Your task to perform on an android device: toggle pop-ups in chrome Image 0: 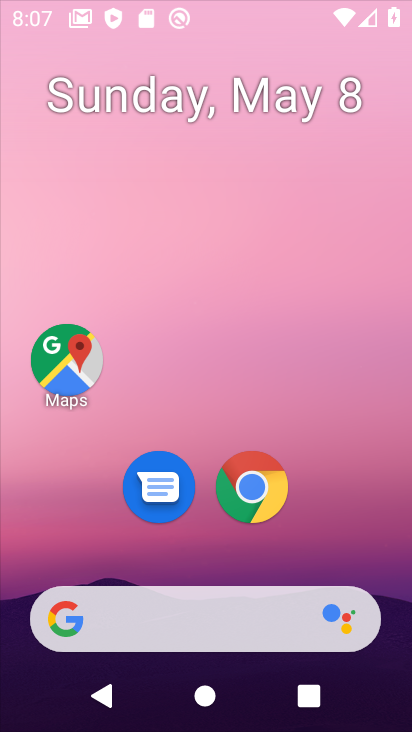
Step 0: click (380, 10)
Your task to perform on an android device: toggle pop-ups in chrome Image 1: 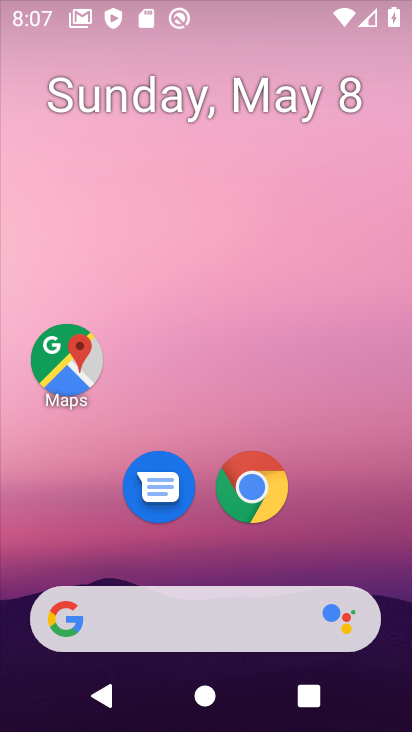
Step 1: press home button
Your task to perform on an android device: toggle pop-ups in chrome Image 2: 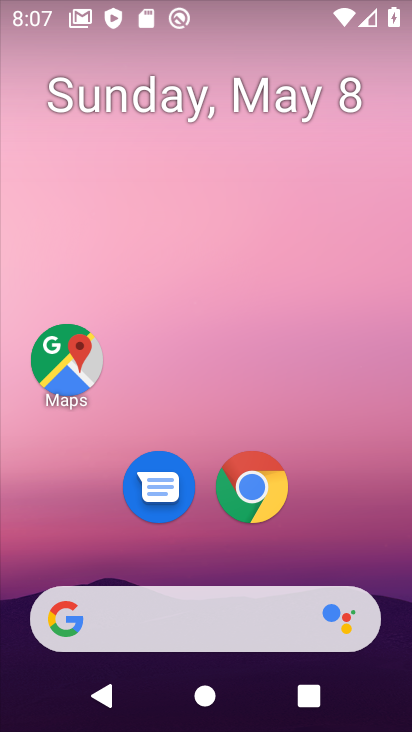
Step 2: click (258, 509)
Your task to perform on an android device: toggle pop-ups in chrome Image 3: 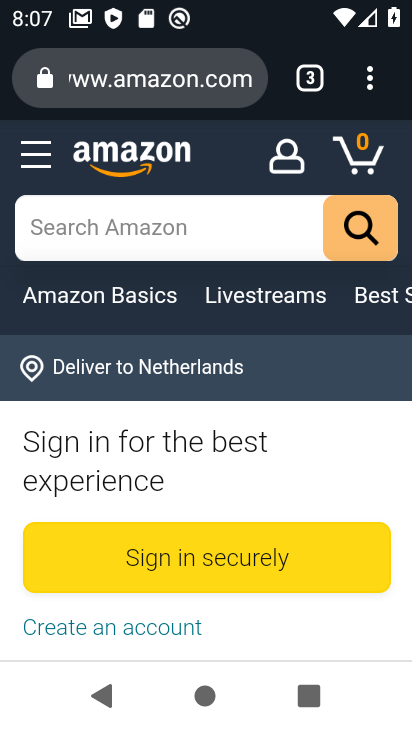
Step 3: click (372, 97)
Your task to perform on an android device: toggle pop-ups in chrome Image 4: 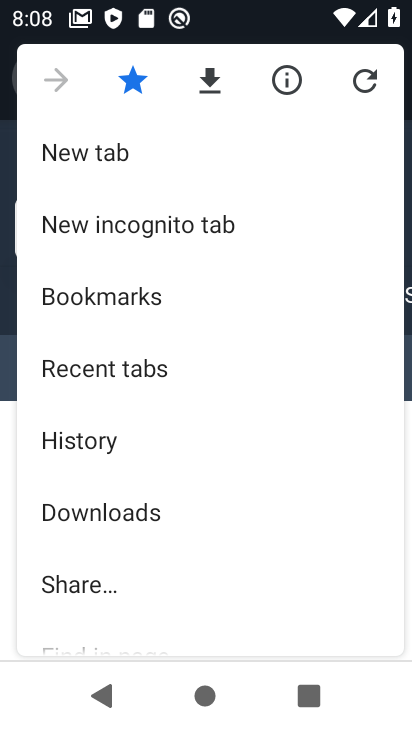
Step 4: drag from (162, 520) to (235, 292)
Your task to perform on an android device: toggle pop-ups in chrome Image 5: 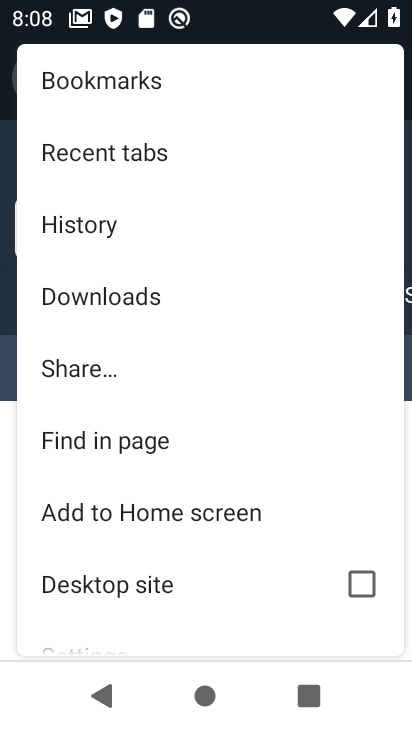
Step 5: drag from (129, 590) to (202, 337)
Your task to perform on an android device: toggle pop-ups in chrome Image 6: 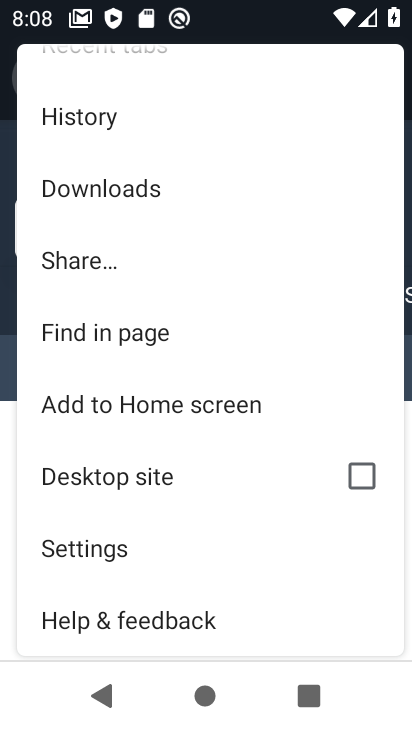
Step 6: click (151, 529)
Your task to perform on an android device: toggle pop-ups in chrome Image 7: 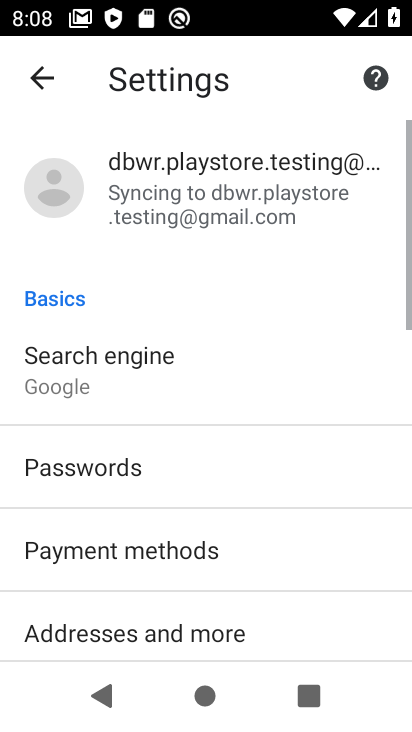
Step 7: drag from (204, 550) to (313, 151)
Your task to perform on an android device: toggle pop-ups in chrome Image 8: 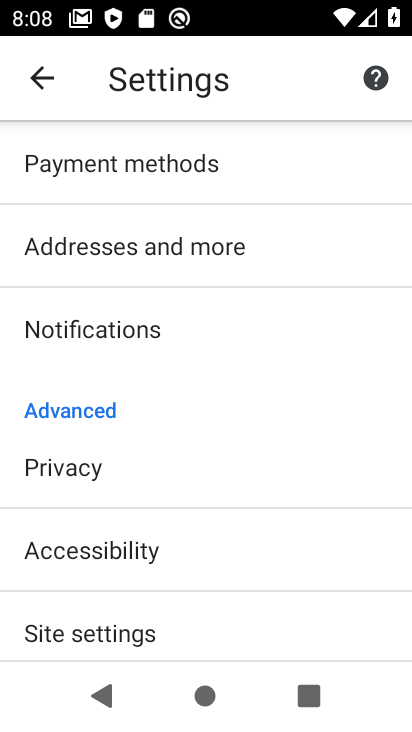
Step 8: drag from (185, 520) to (269, 290)
Your task to perform on an android device: toggle pop-ups in chrome Image 9: 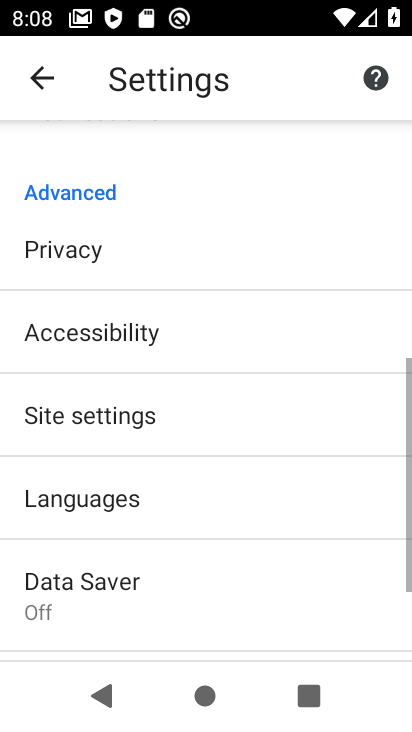
Step 9: click (218, 403)
Your task to perform on an android device: toggle pop-ups in chrome Image 10: 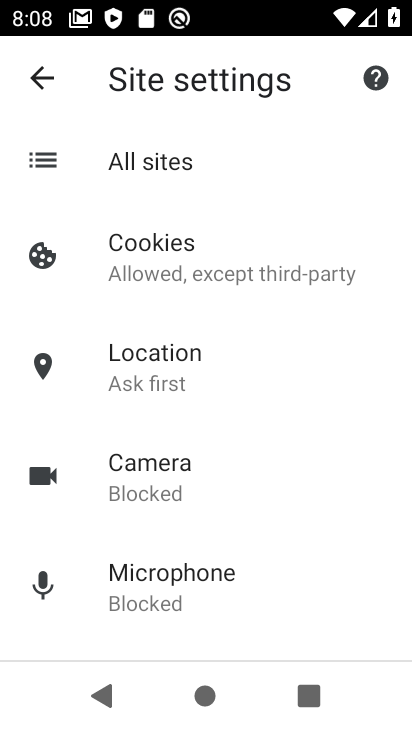
Step 10: drag from (190, 549) to (285, 240)
Your task to perform on an android device: toggle pop-ups in chrome Image 11: 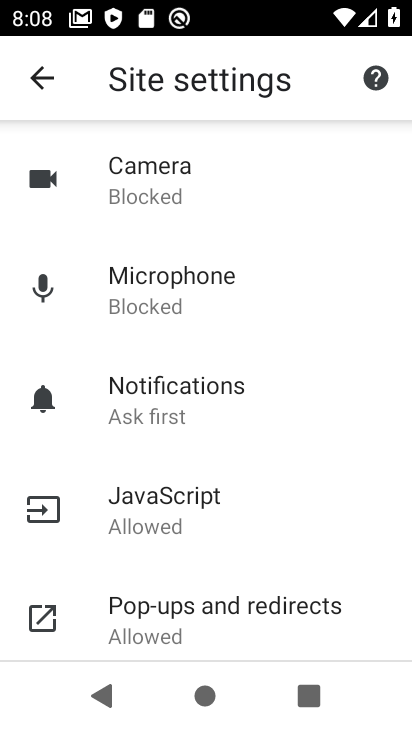
Step 11: click (216, 615)
Your task to perform on an android device: toggle pop-ups in chrome Image 12: 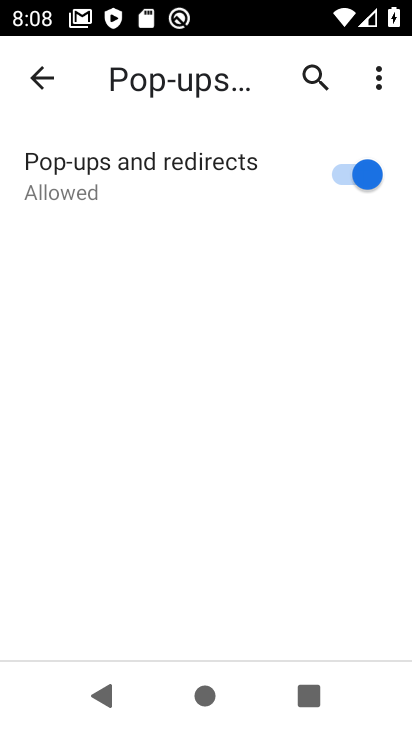
Step 12: click (361, 163)
Your task to perform on an android device: toggle pop-ups in chrome Image 13: 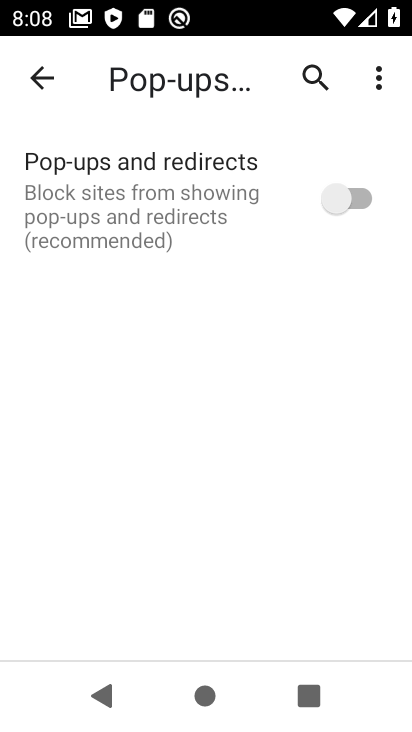
Step 13: task complete